Your task to perform on an android device: Go to ESPN.com Image 0: 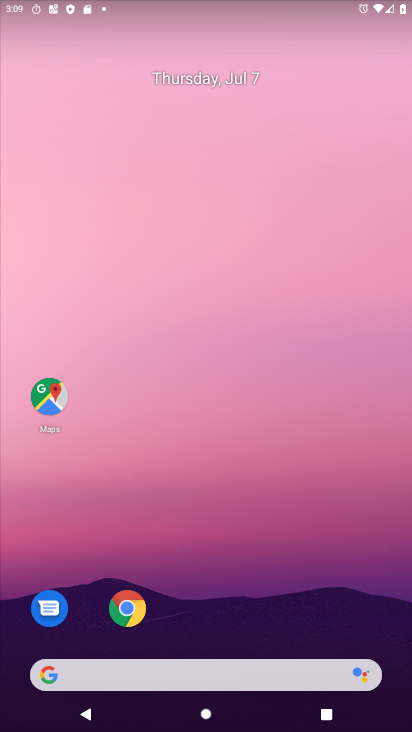
Step 0: click (124, 606)
Your task to perform on an android device: Go to ESPN.com Image 1: 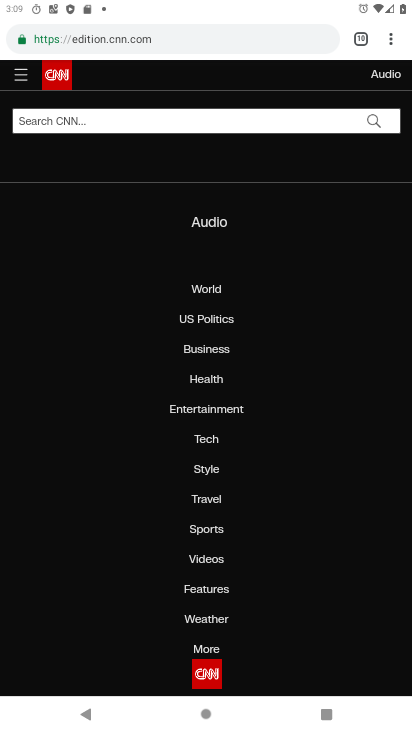
Step 1: click (391, 42)
Your task to perform on an android device: Go to ESPN.com Image 2: 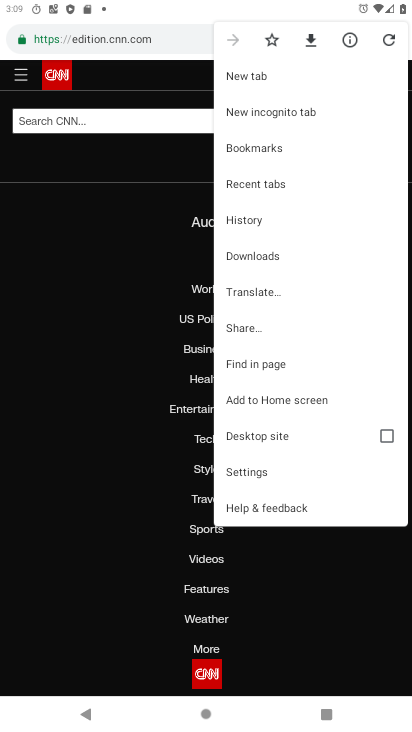
Step 2: click (248, 72)
Your task to perform on an android device: Go to ESPN.com Image 3: 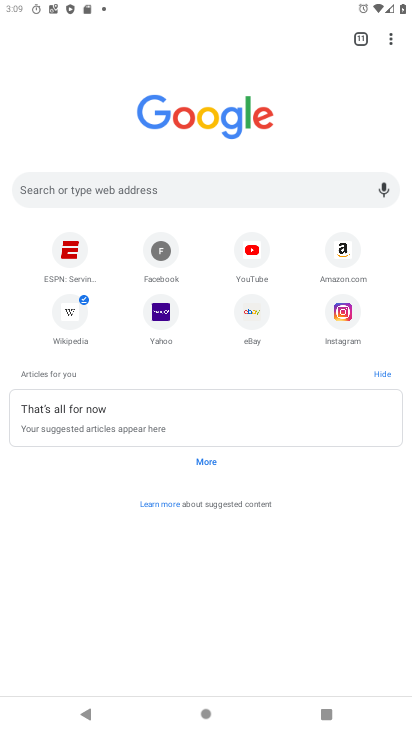
Step 3: click (71, 248)
Your task to perform on an android device: Go to ESPN.com Image 4: 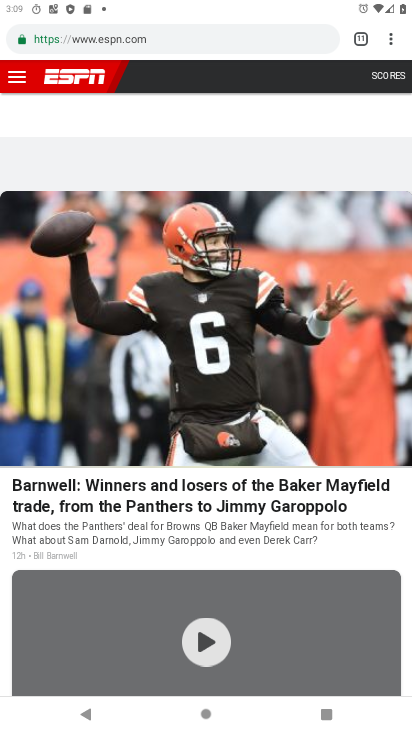
Step 4: task complete